Your task to perform on an android device: Clear the shopping cart on walmart. Add "duracell triple a" to the cart on walmart, then select checkout. Image 0: 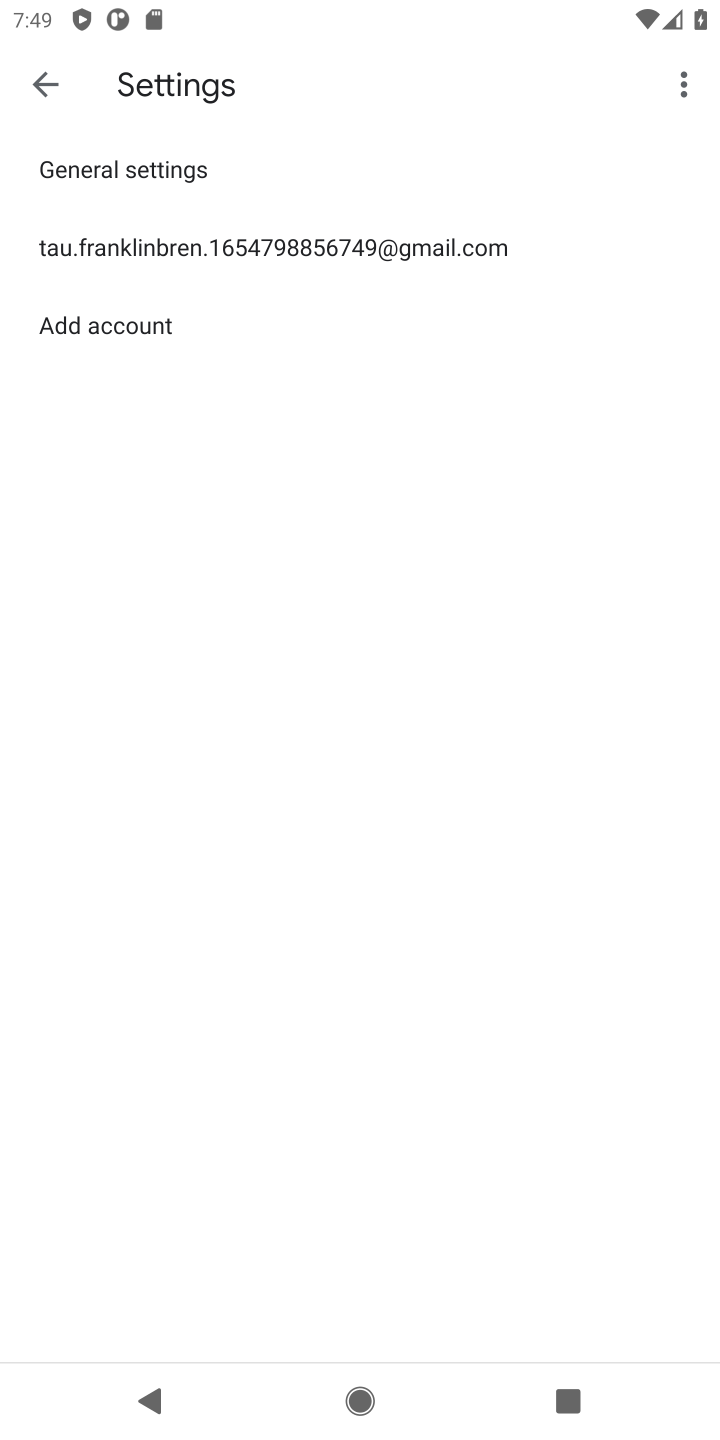
Step 0: press home button
Your task to perform on an android device: Clear the shopping cart on walmart. Add "duracell triple a" to the cart on walmart, then select checkout. Image 1: 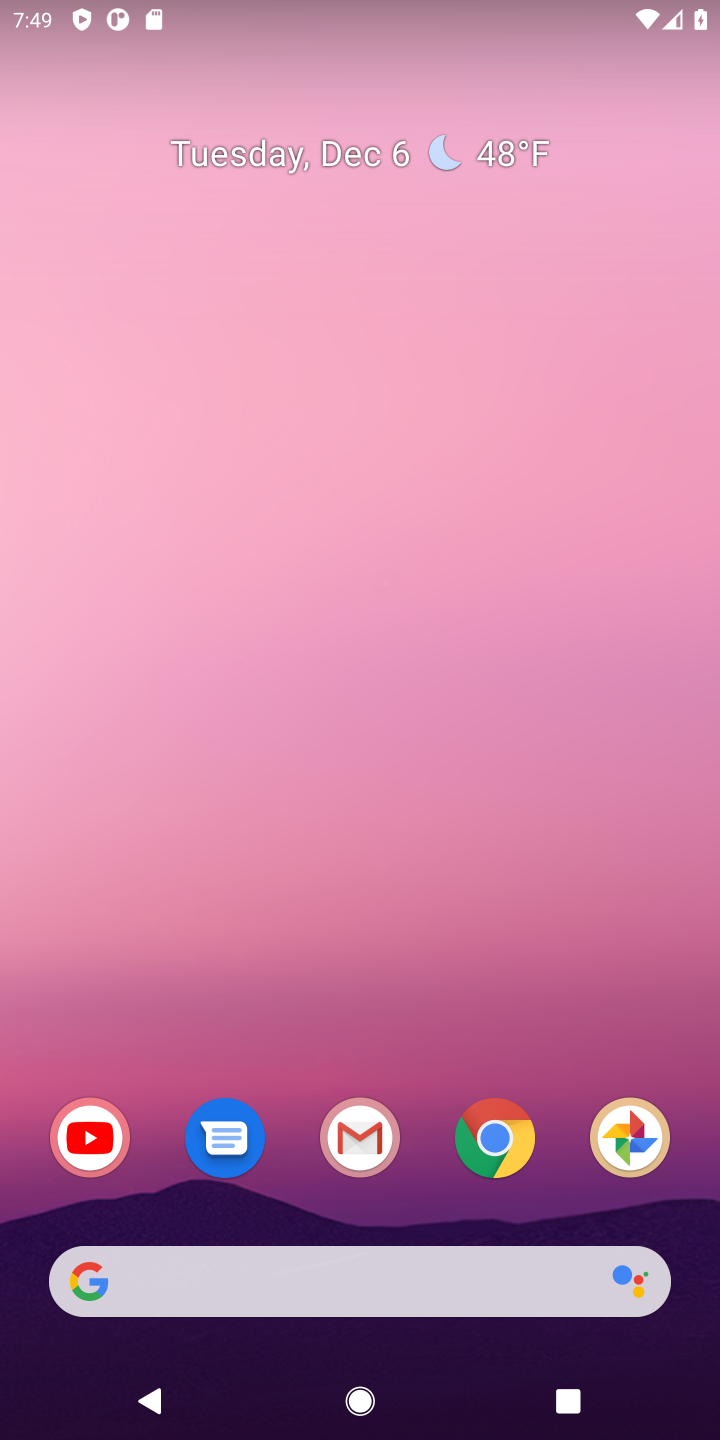
Step 1: click (490, 1158)
Your task to perform on an android device: Clear the shopping cart on walmart. Add "duracell triple a" to the cart on walmart, then select checkout. Image 2: 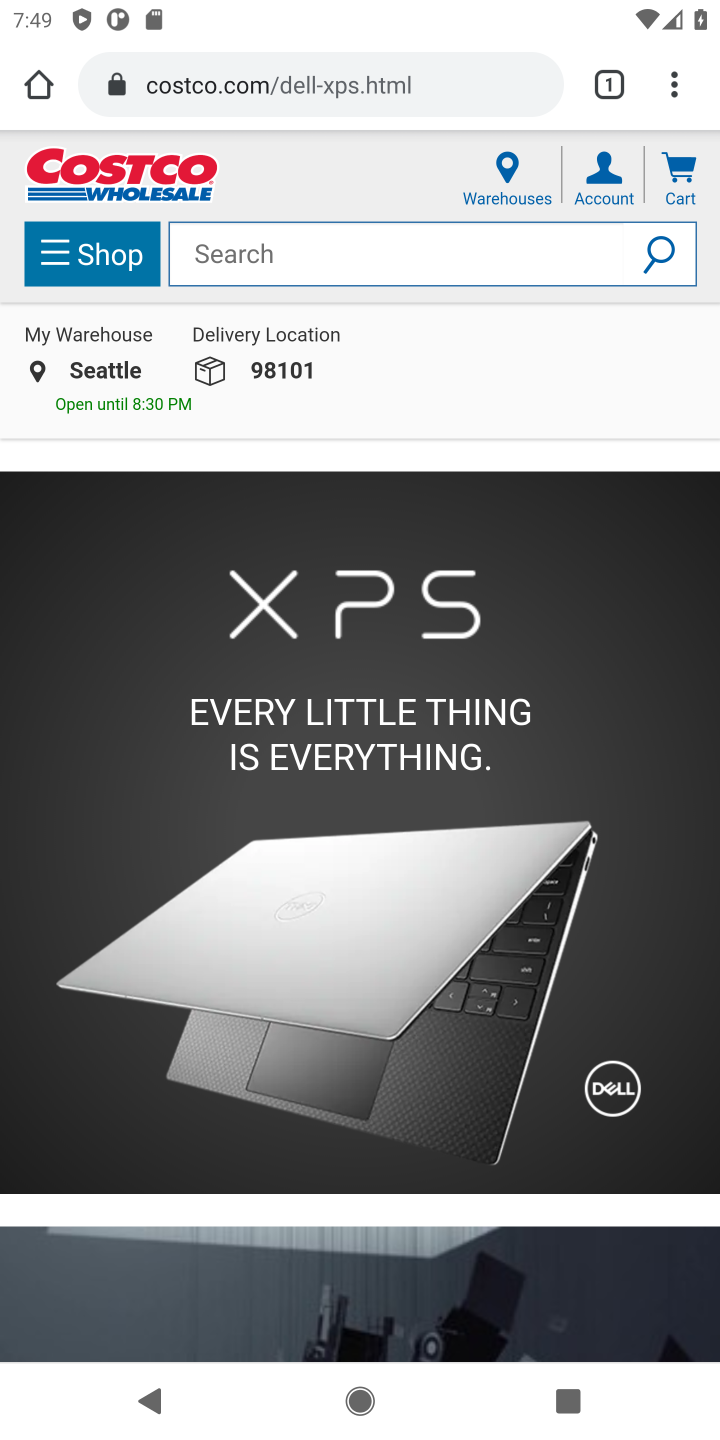
Step 2: click (337, 91)
Your task to perform on an android device: Clear the shopping cart on walmart. Add "duracell triple a" to the cart on walmart, then select checkout. Image 3: 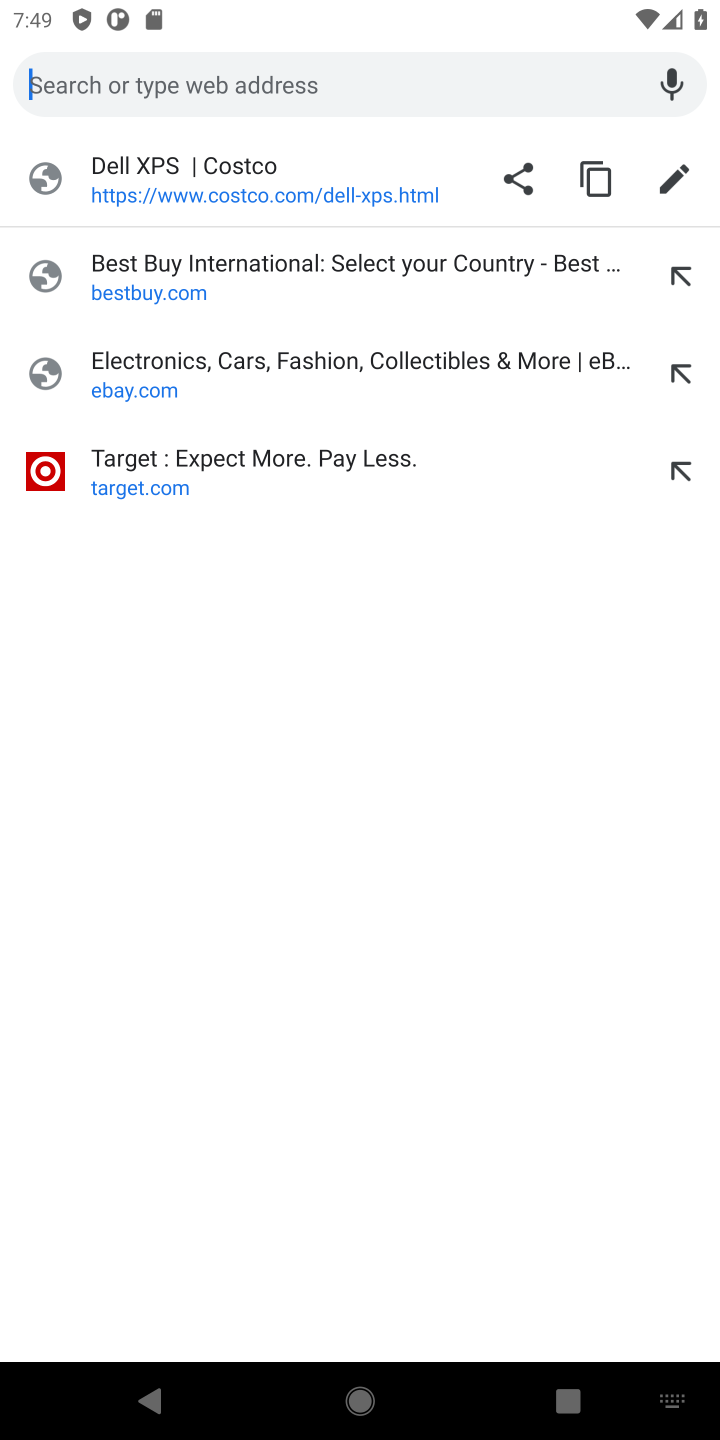
Step 3: type "walmart.com"
Your task to perform on an android device: Clear the shopping cart on walmart. Add "duracell triple a" to the cart on walmart, then select checkout. Image 4: 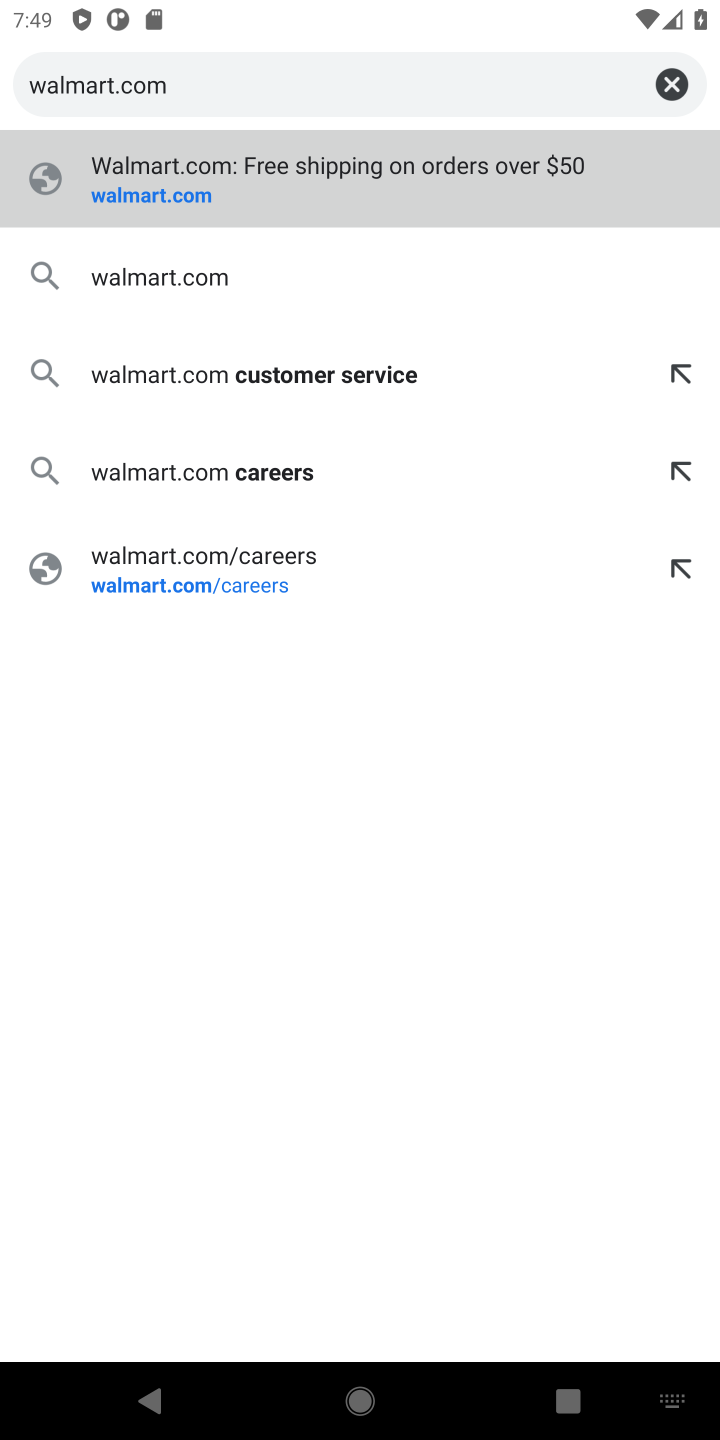
Step 4: click (111, 199)
Your task to perform on an android device: Clear the shopping cart on walmart. Add "duracell triple a" to the cart on walmart, then select checkout. Image 5: 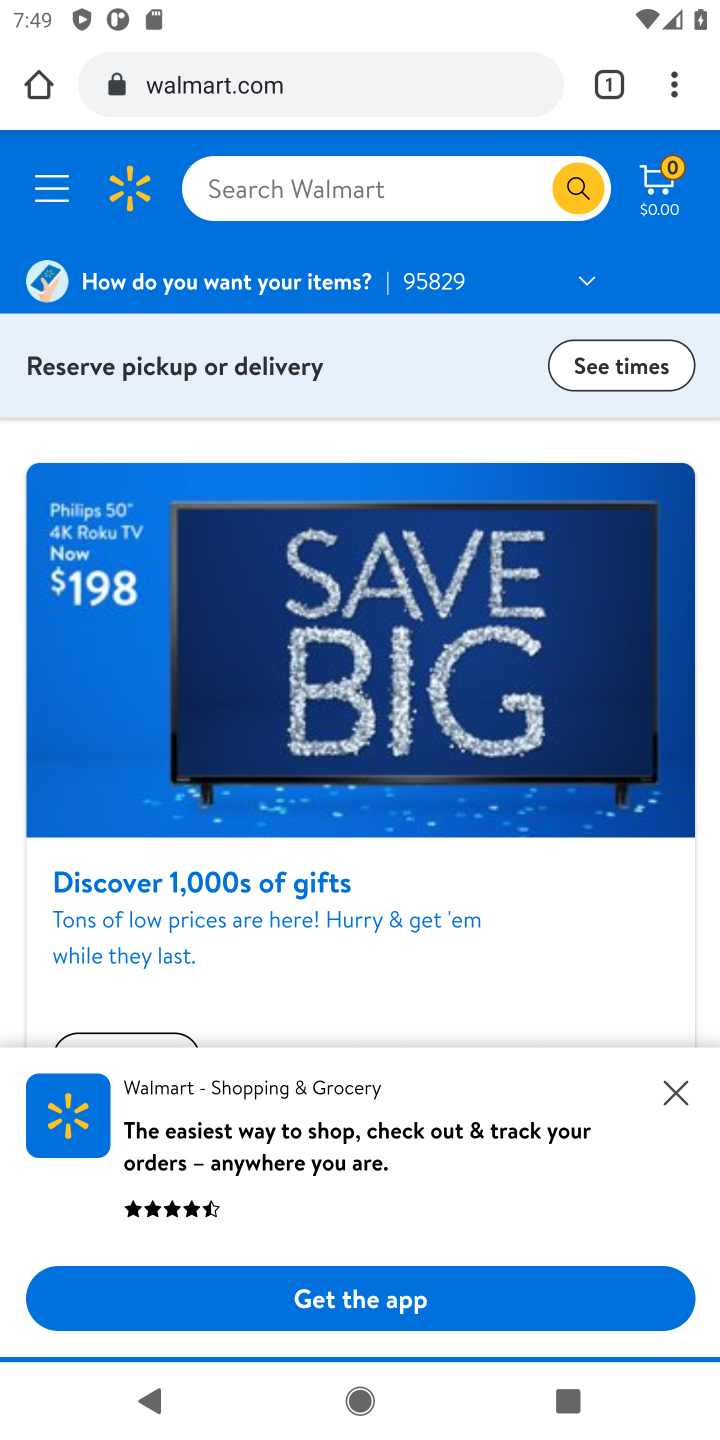
Step 5: click (677, 180)
Your task to perform on an android device: Clear the shopping cart on walmart. Add "duracell triple a" to the cart on walmart, then select checkout. Image 6: 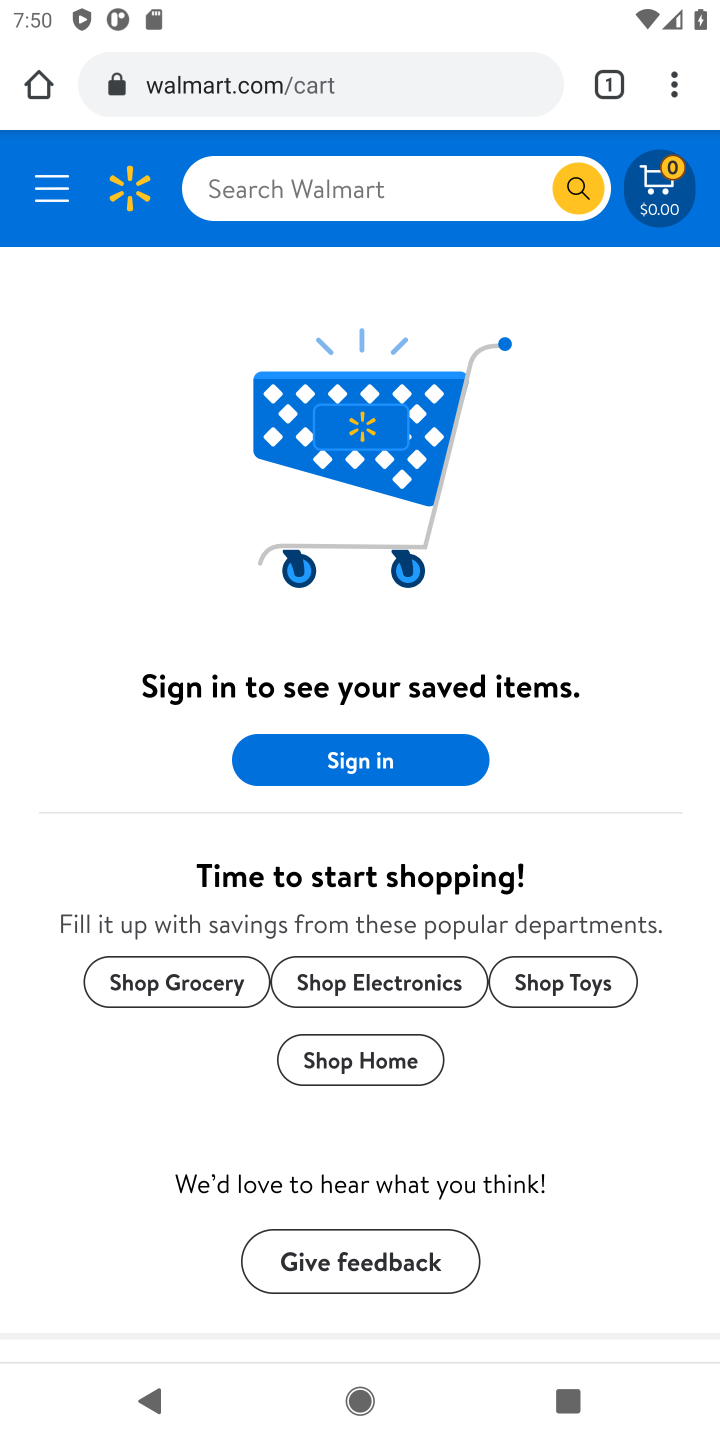
Step 6: click (250, 189)
Your task to perform on an android device: Clear the shopping cart on walmart. Add "duracell triple a" to the cart on walmart, then select checkout. Image 7: 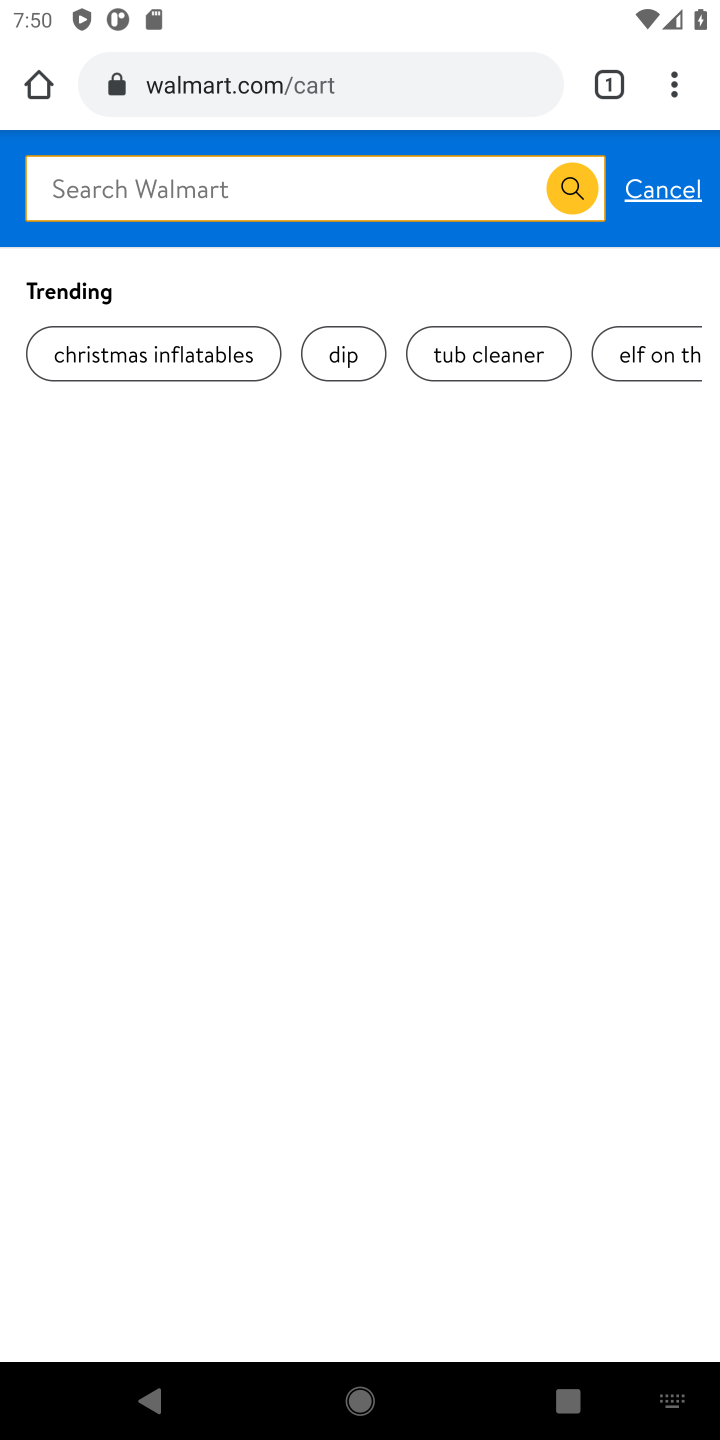
Step 7: type "duracell triple a"
Your task to perform on an android device: Clear the shopping cart on walmart. Add "duracell triple a" to the cart on walmart, then select checkout. Image 8: 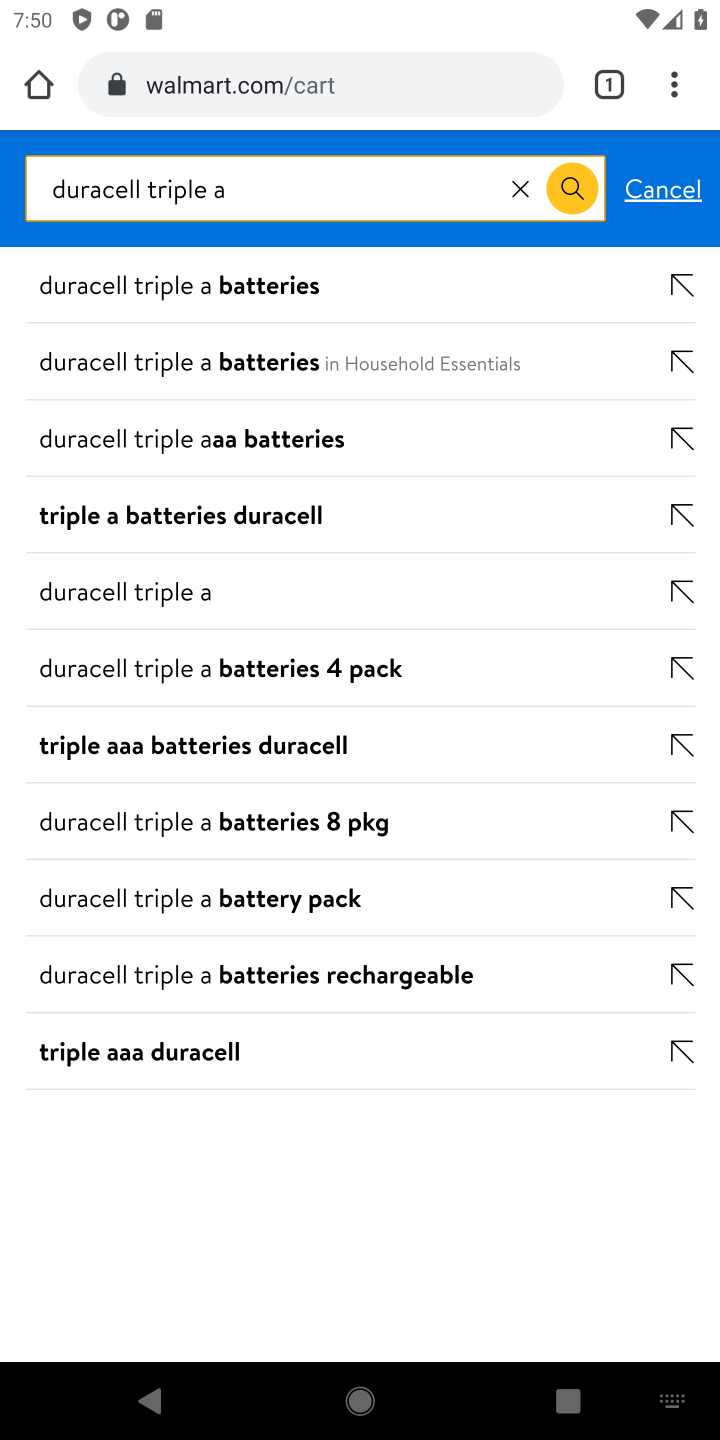
Step 8: click (258, 298)
Your task to perform on an android device: Clear the shopping cart on walmart. Add "duracell triple a" to the cart on walmart, then select checkout. Image 9: 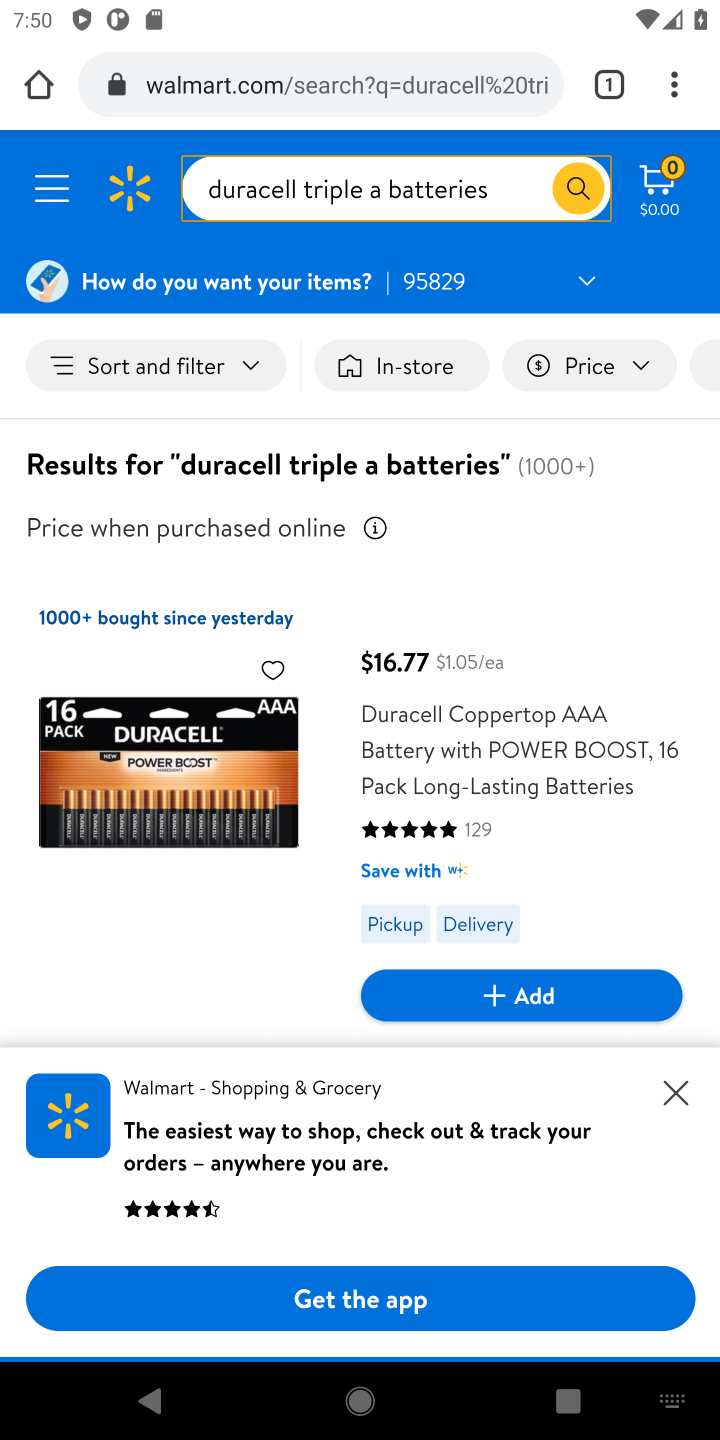
Step 9: click (685, 1092)
Your task to perform on an android device: Clear the shopping cart on walmart. Add "duracell triple a" to the cart on walmart, then select checkout. Image 10: 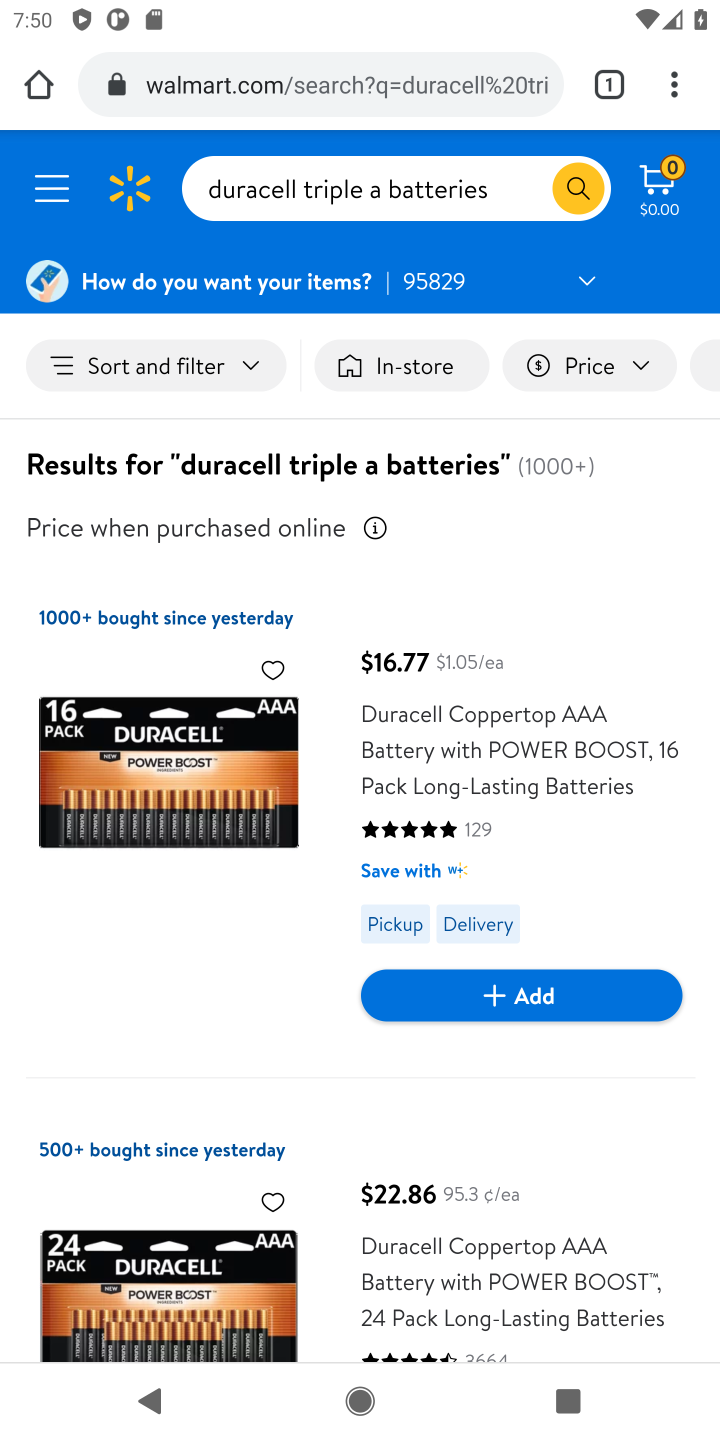
Step 10: click (496, 1003)
Your task to perform on an android device: Clear the shopping cart on walmart. Add "duracell triple a" to the cart on walmart, then select checkout. Image 11: 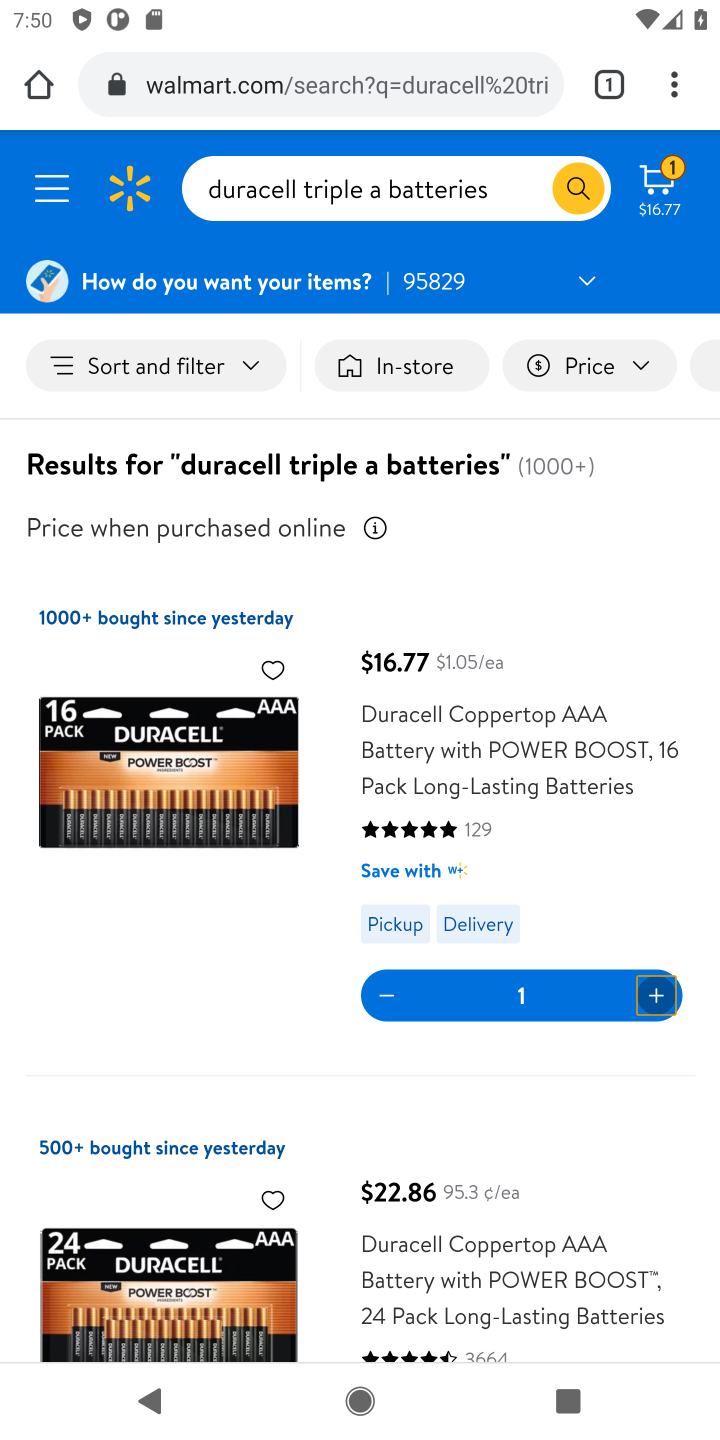
Step 11: click (653, 184)
Your task to perform on an android device: Clear the shopping cart on walmart. Add "duracell triple a" to the cart on walmart, then select checkout. Image 12: 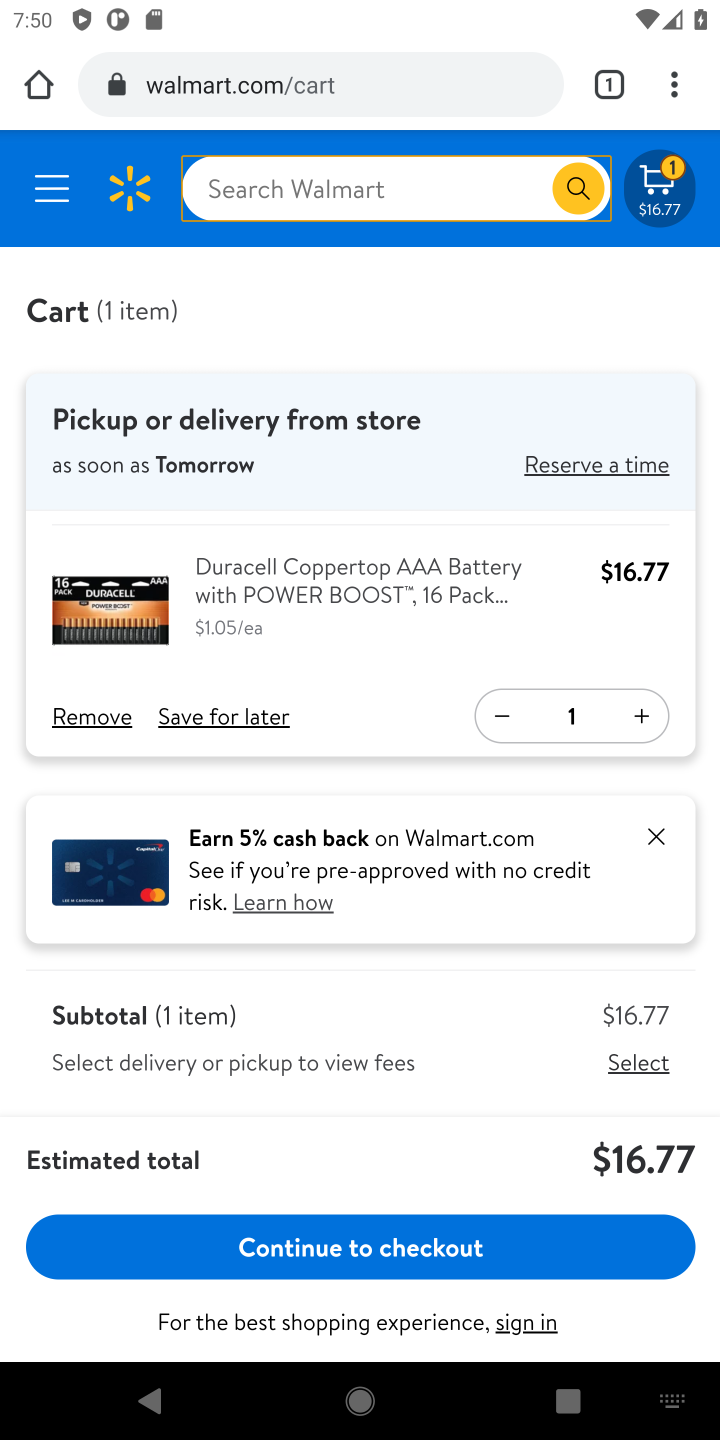
Step 12: click (269, 1231)
Your task to perform on an android device: Clear the shopping cart on walmart. Add "duracell triple a" to the cart on walmart, then select checkout. Image 13: 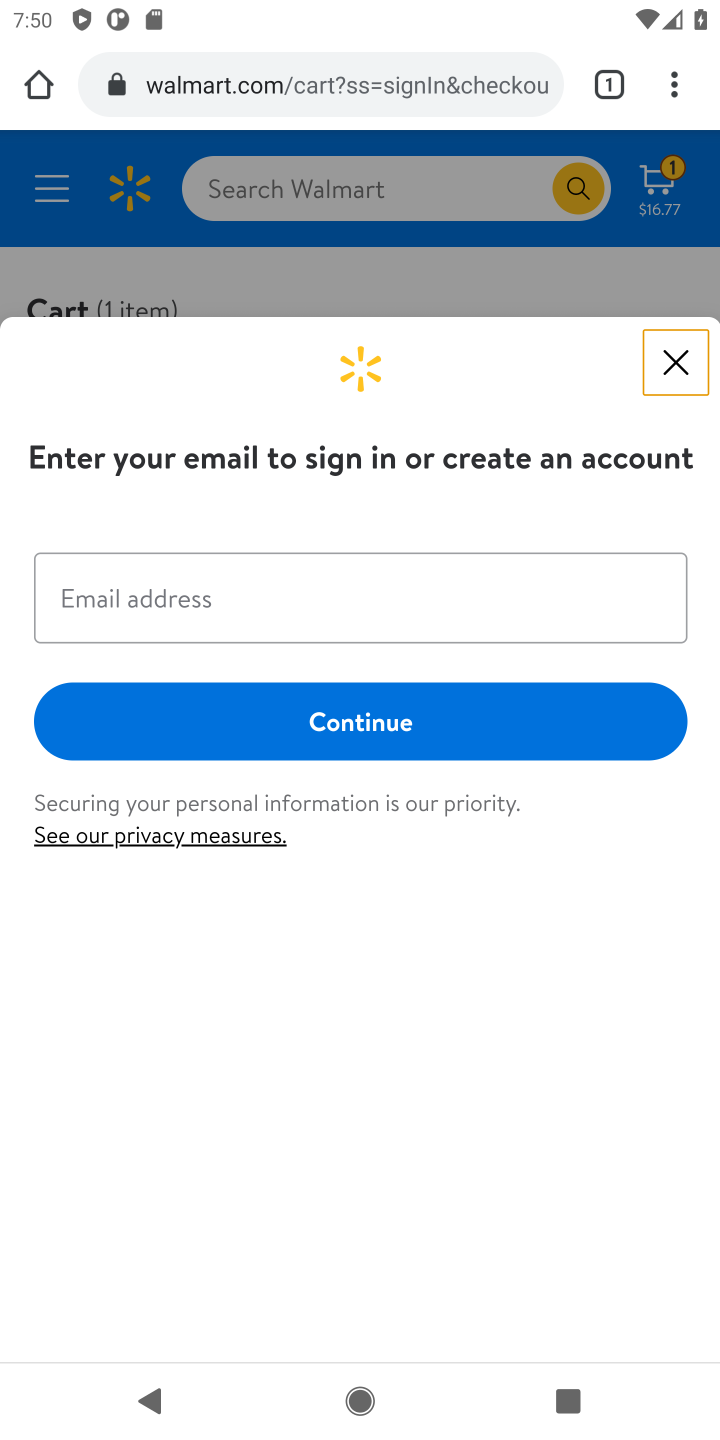
Step 13: task complete